Your task to perform on an android device: turn on airplane mode Image 0: 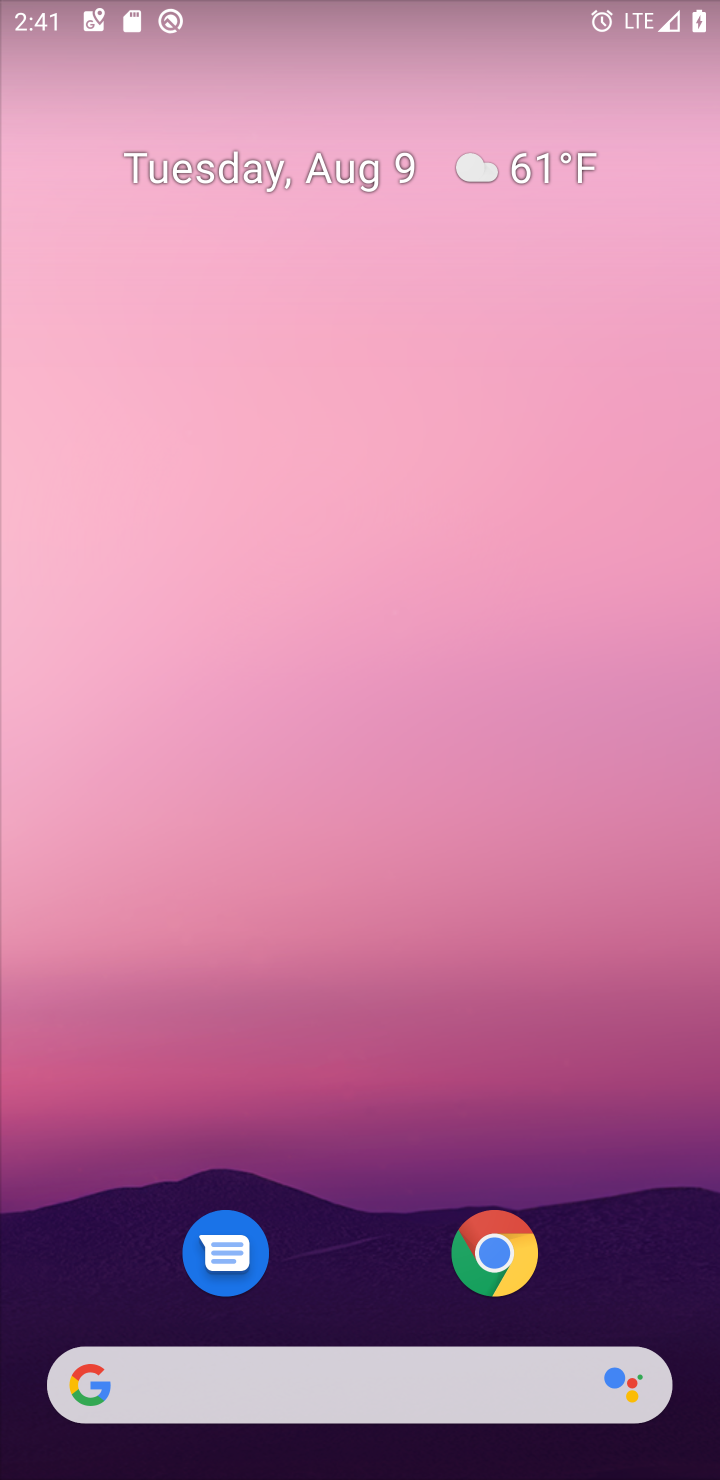
Step 0: drag from (316, 26) to (422, 1168)
Your task to perform on an android device: turn on airplane mode Image 1: 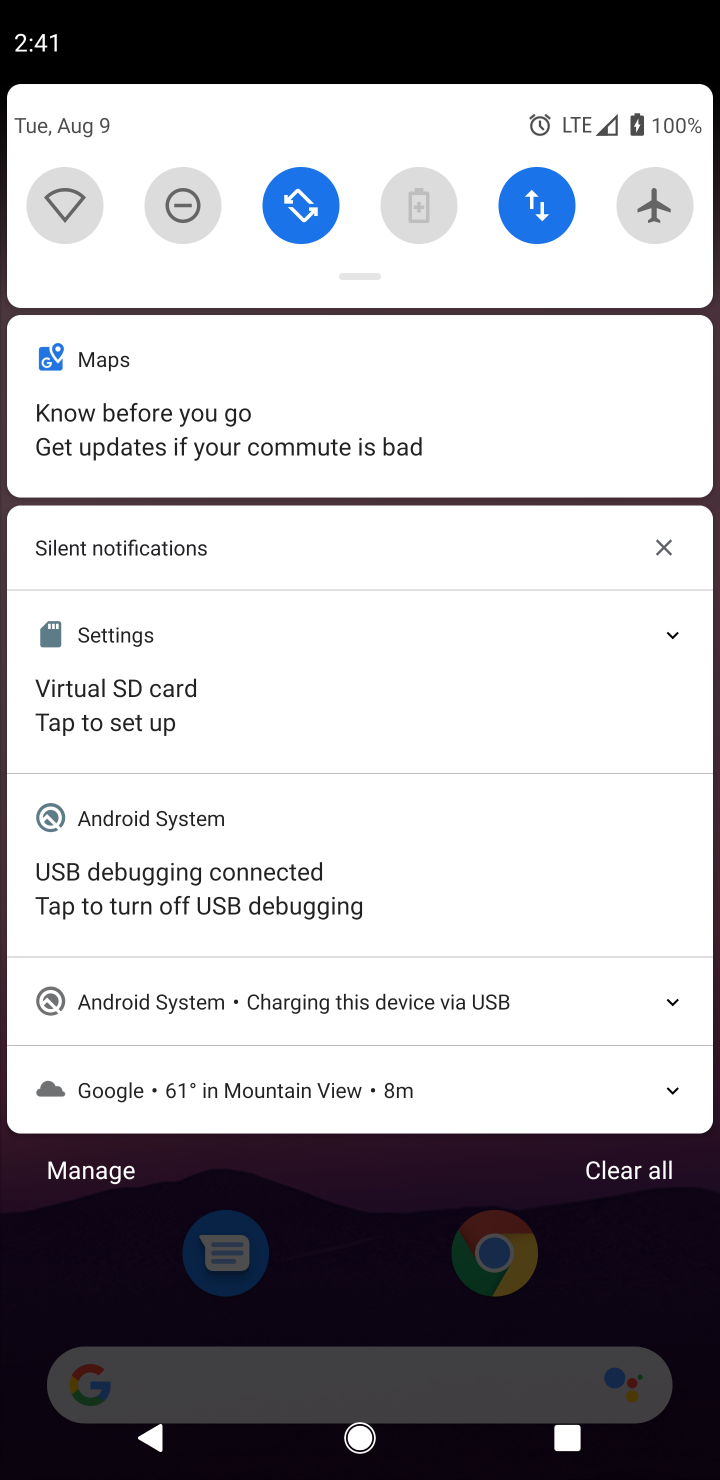
Step 1: click (673, 198)
Your task to perform on an android device: turn on airplane mode Image 2: 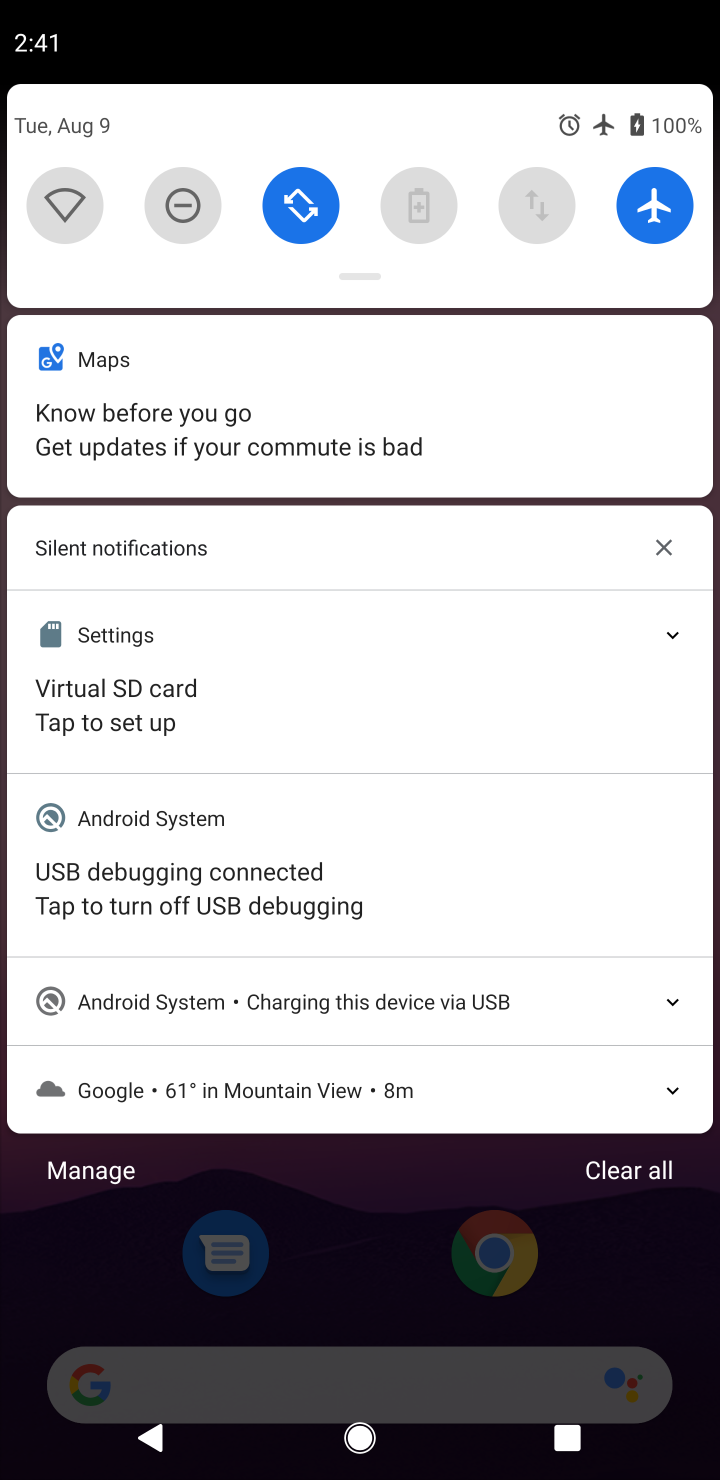
Step 2: task complete